Your task to perform on an android device: Is it going to rain today? Image 0: 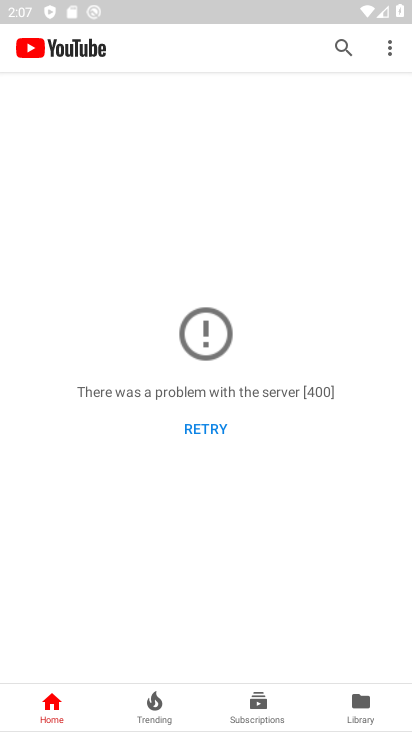
Step 0: press home button
Your task to perform on an android device: Is it going to rain today? Image 1: 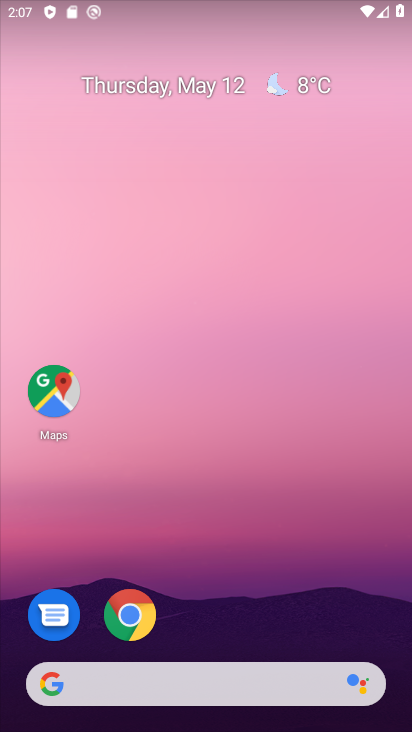
Step 1: click (306, 105)
Your task to perform on an android device: Is it going to rain today? Image 2: 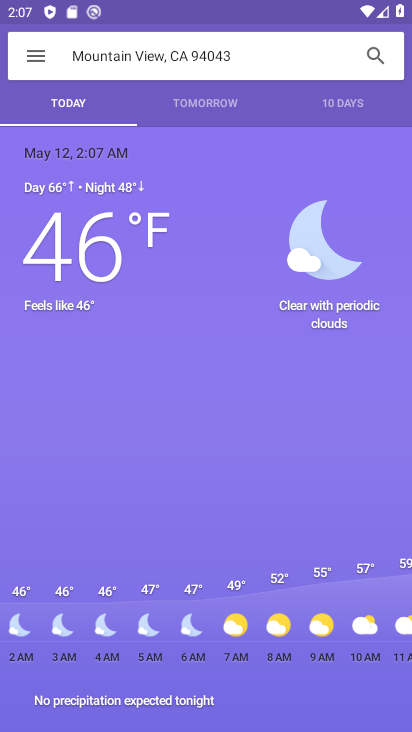
Step 2: task complete